Your task to perform on an android device: Open the calendar and show me this week's events? Image 0: 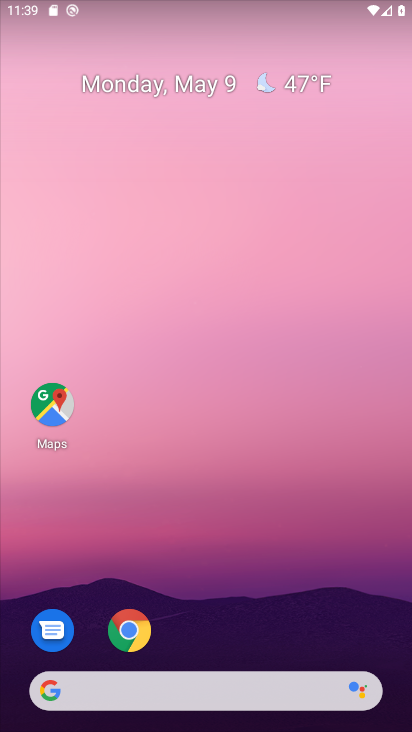
Step 0: drag from (270, 626) to (96, 153)
Your task to perform on an android device: Open the calendar and show me this week's events? Image 1: 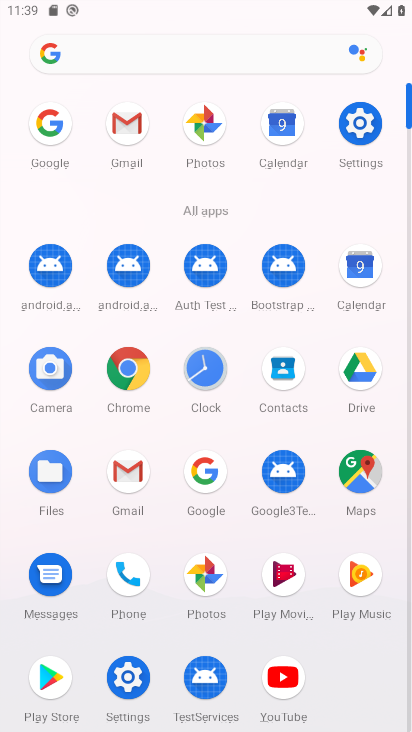
Step 1: click (290, 127)
Your task to perform on an android device: Open the calendar and show me this week's events? Image 2: 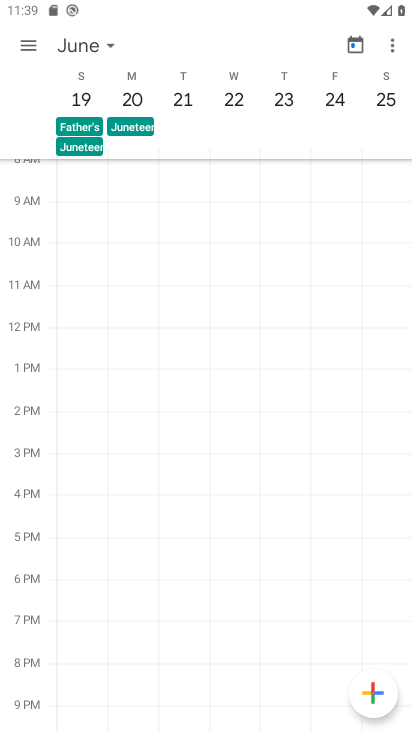
Step 2: click (94, 47)
Your task to perform on an android device: Open the calendar and show me this week's events? Image 3: 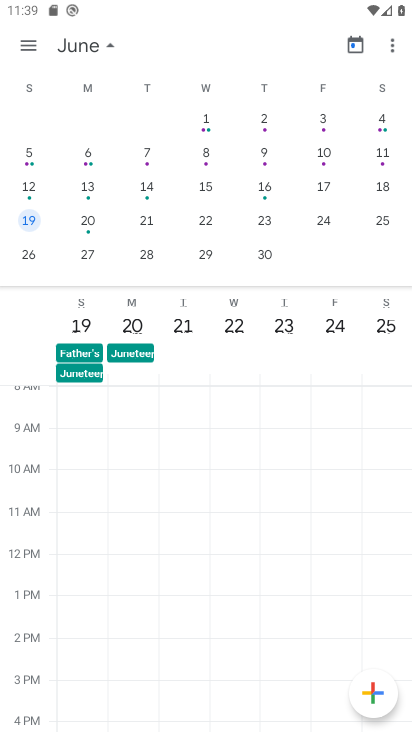
Step 3: drag from (39, 194) to (405, 226)
Your task to perform on an android device: Open the calendar and show me this week's events? Image 4: 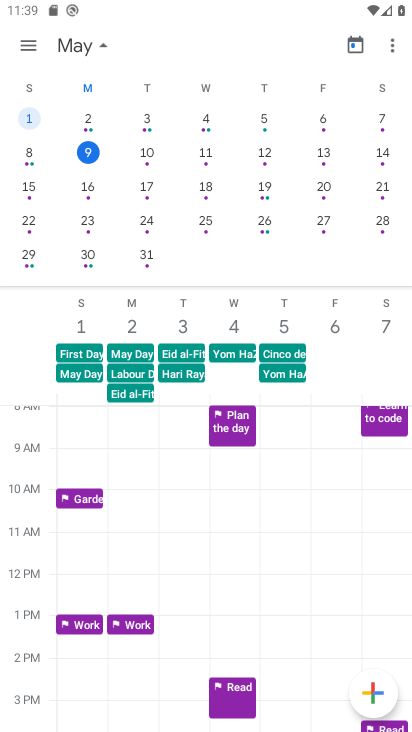
Step 4: click (382, 146)
Your task to perform on an android device: Open the calendar and show me this week's events? Image 5: 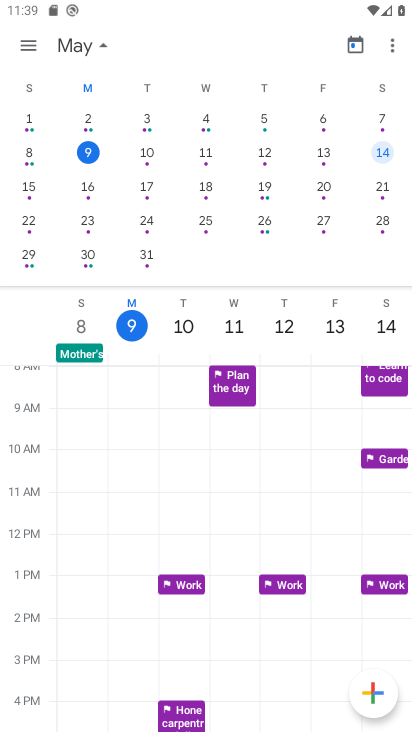
Step 5: drag from (396, 427) to (376, 555)
Your task to perform on an android device: Open the calendar and show me this week's events? Image 6: 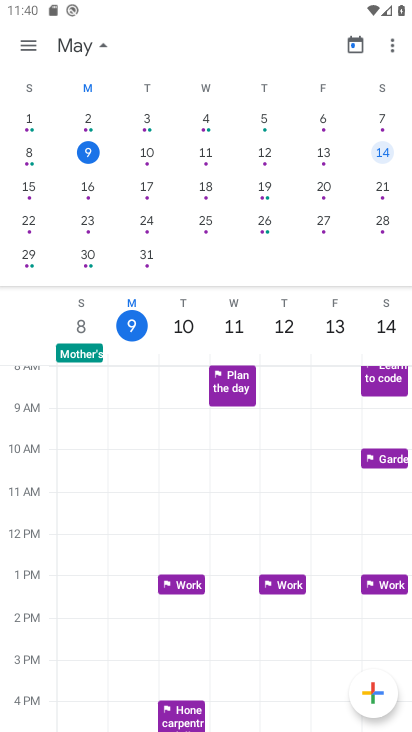
Step 6: click (387, 326)
Your task to perform on an android device: Open the calendar and show me this week's events? Image 7: 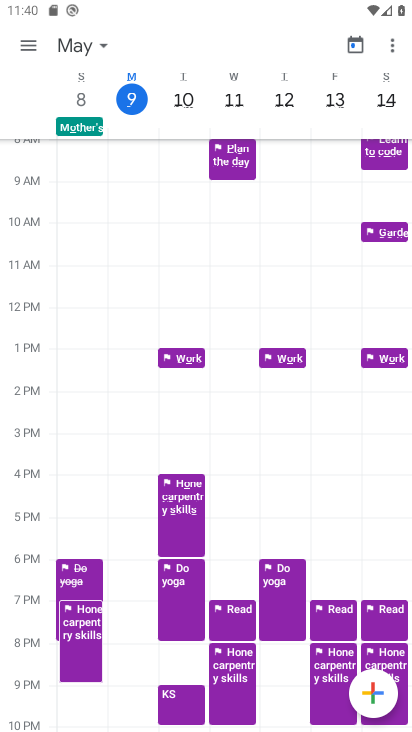
Step 7: click (42, 41)
Your task to perform on an android device: Open the calendar and show me this week's events? Image 8: 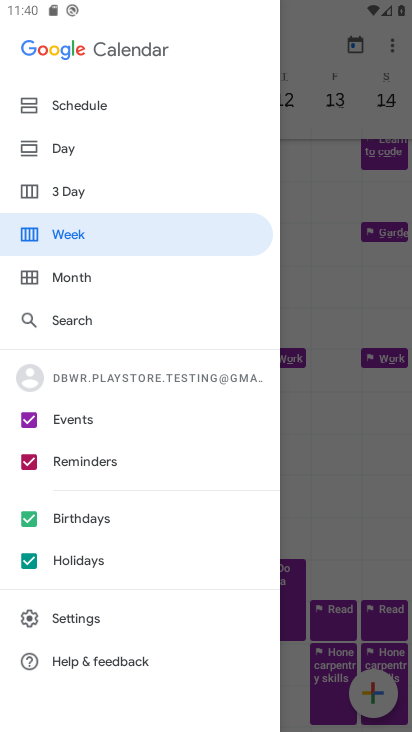
Step 8: click (71, 97)
Your task to perform on an android device: Open the calendar and show me this week's events? Image 9: 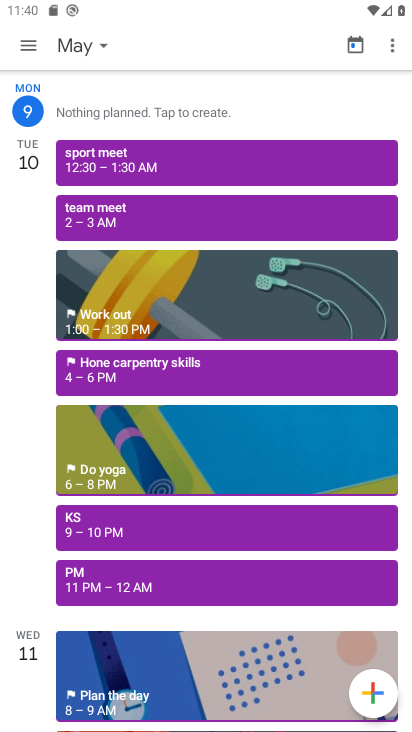
Step 9: task complete